Your task to perform on an android device: Search for sushi restaurants on Maps Image 0: 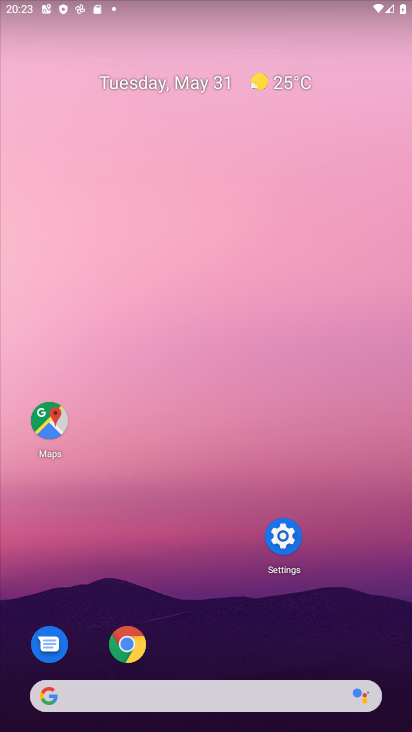
Step 0: press home button
Your task to perform on an android device: Search for sushi restaurants on Maps Image 1: 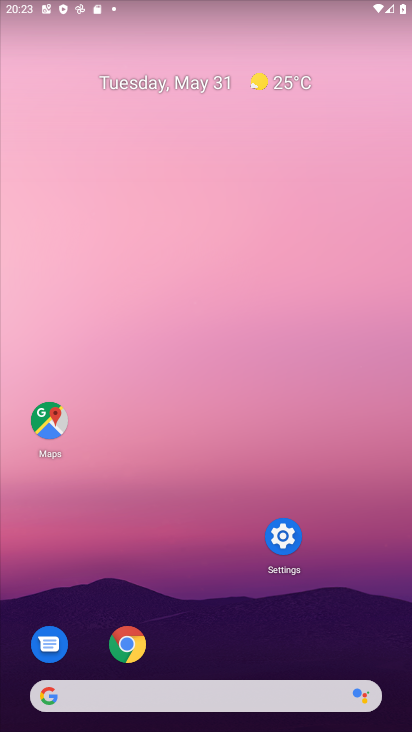
Step 1: click (45, 427)
Your task to perform on an android device: Search for sushi restaurants on Maps Image 2: 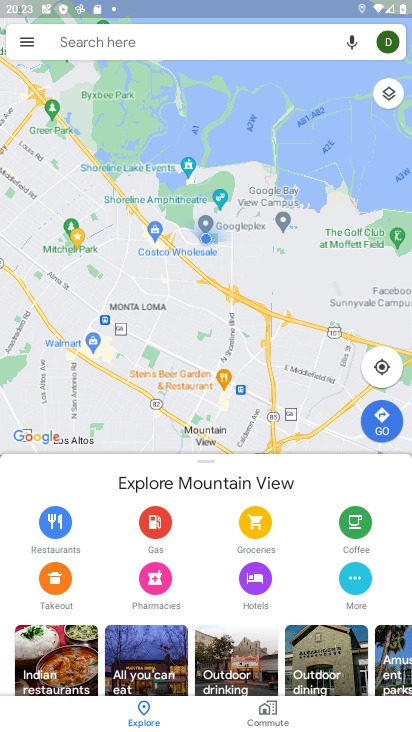
Step 2: click (150, 38)
Your task to perform on an android device: Search for sushi restaurants on Maps Image 3: 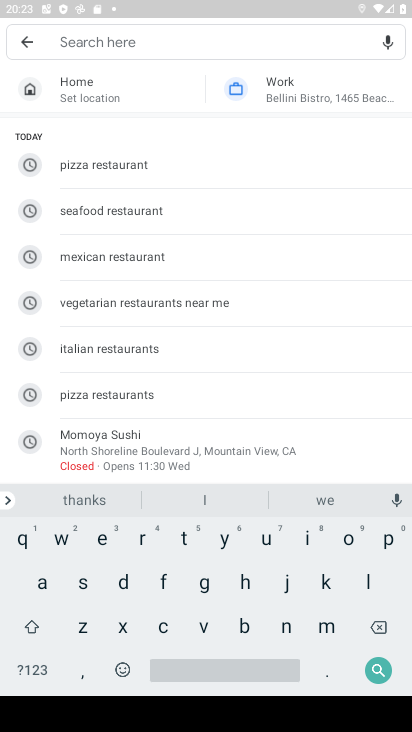
Step 3: click (84, 583)
Your task to perform on an android device: Search for sushi restaurants on Maps Image 4: 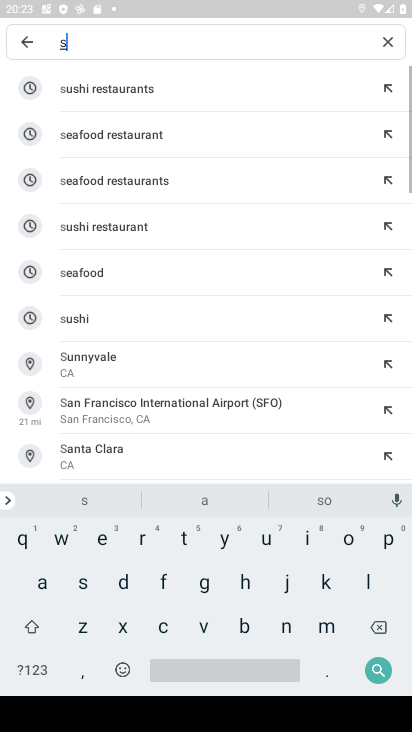
Step 4: click (269, 538)
Your task to perform on an android device: Search for sushi restaurants on Maps Image 5: 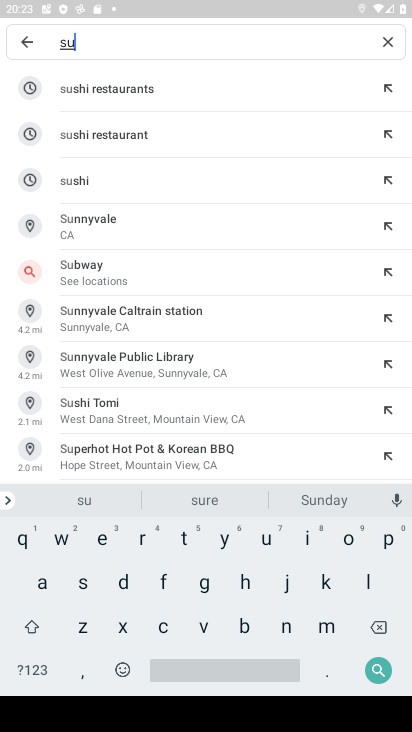
Step 5: click (117, 82)
Your task to perform on an android device: Search for sushi restaurants on Maps Image 6: 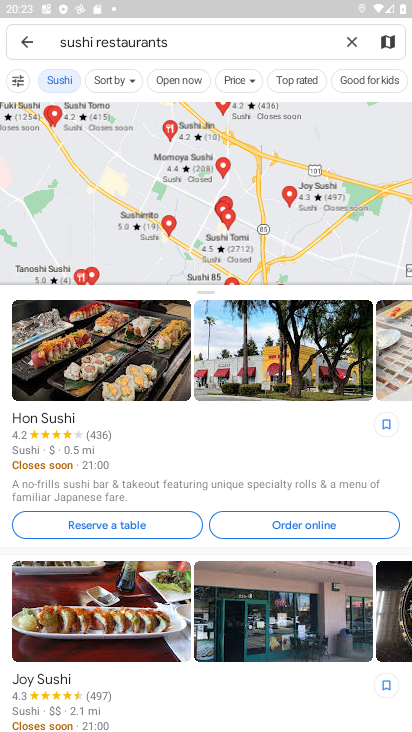
Step 6: task complete